Your task to perform on an android device: Go to Reddit.com Image 0: 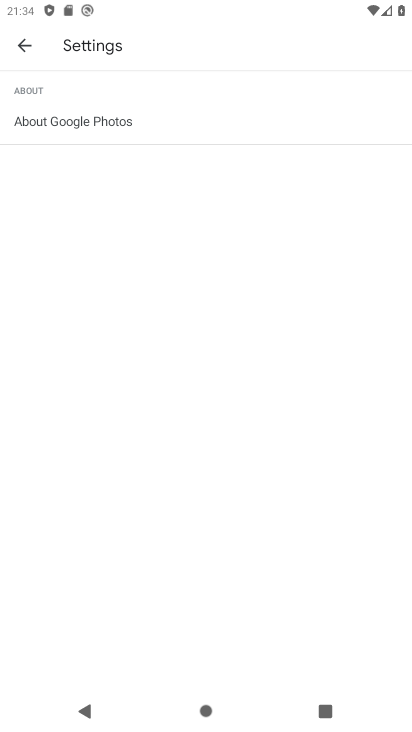
Step 0: press back button
Your task to perform on an android device: Go to Reddit.com Image 1: 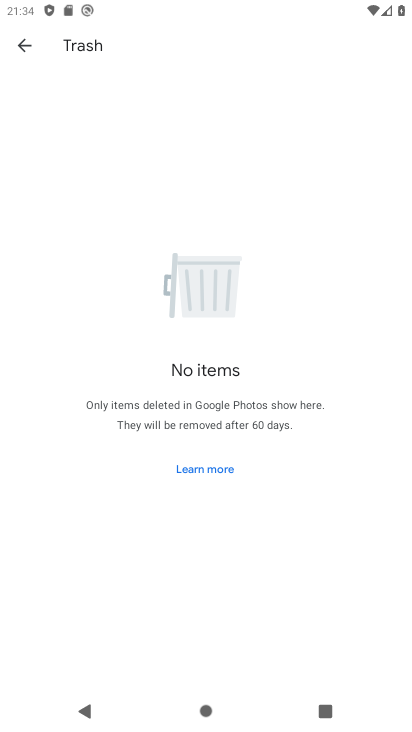
Step 1: press back button
Your task to perform on an android device: Go to Reddit.com Image 2: 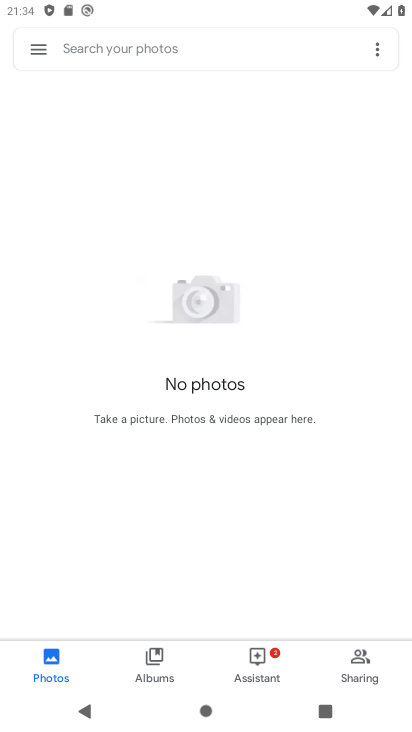
Step 2: press back button
Your task to perform on an android device: Go to Reddit.com Image 3: 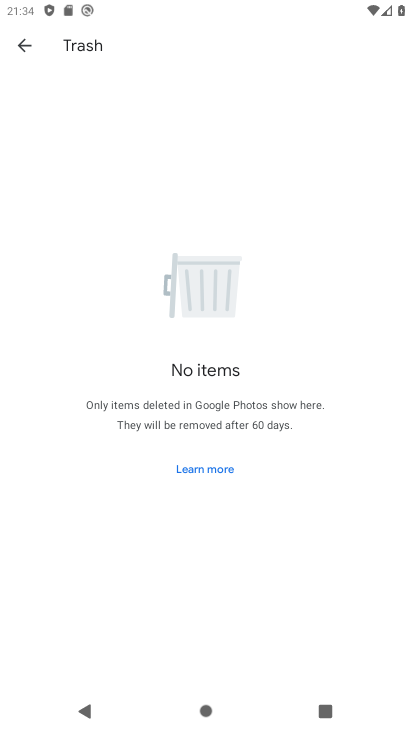
Step 3: press back button
Your task to perform on an android device: Go to Reddit.com Image 4: 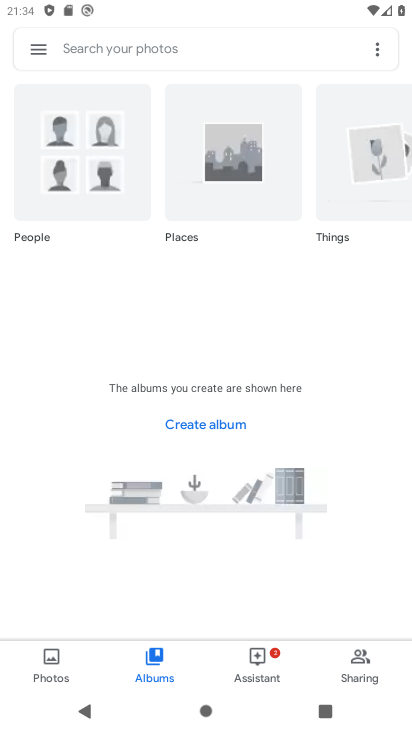
Step 4: press back button
Your task to perform on an android device: Go to Reddit.com Image 5: 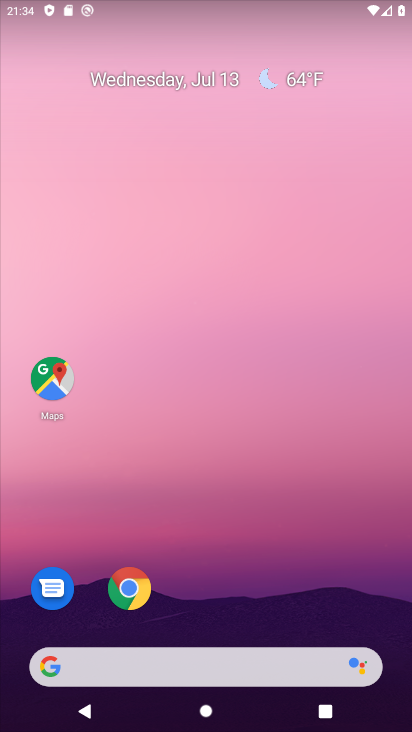
Step 5: click (123, 592)
Your task to perform on an android device: Go to Reddit.com Image 6: 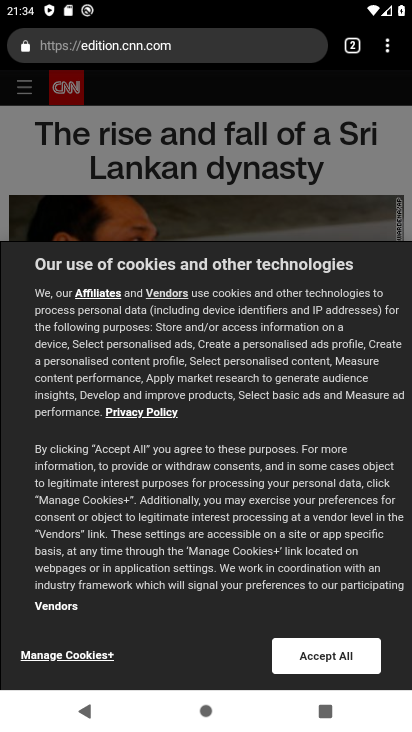
Step 6: click (355, 42)
Your task to perform on an android device: Go to Reddit.com Image 7: 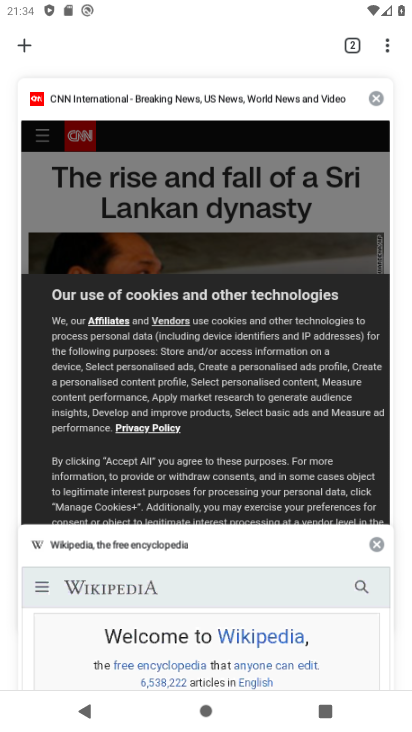
Step 7: click (29, 46)
Your task to perform on an android device: Go to Reddit.com Image 8: 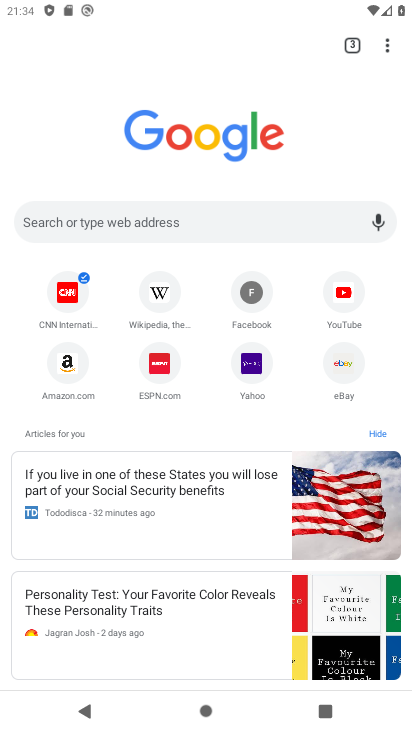
Step 8: click (107, 224)
Your task to perform on an android device: Go to Reddit.com Image 9: 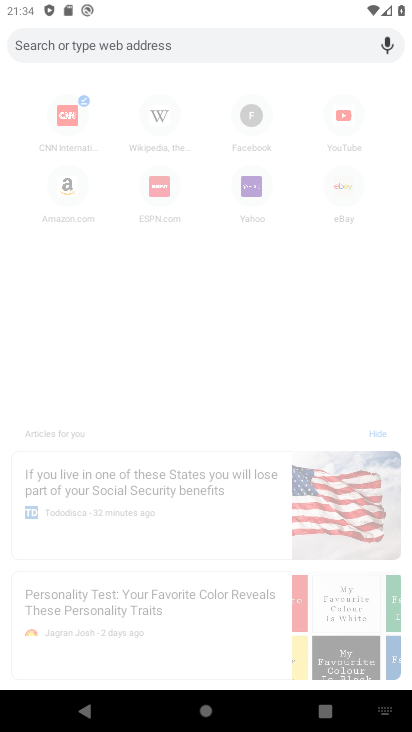
Step 9: type "reddit.com"
Your task to perform on an android device: Go to Reddit.com Image 10: 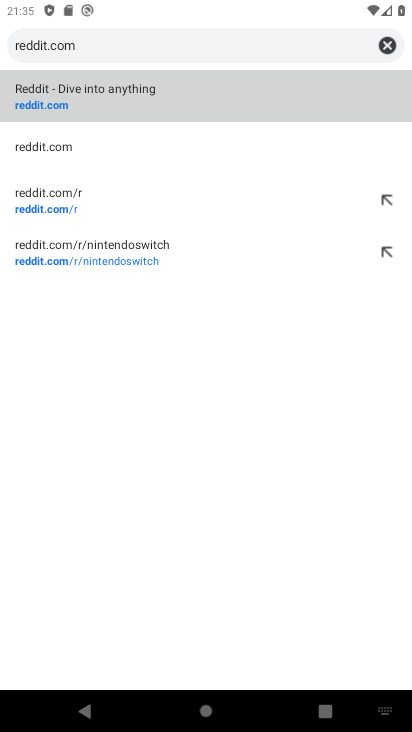
Step 10: click (183, 94)
Your task to perform on an android device: Go to Reddit.com Image 11: 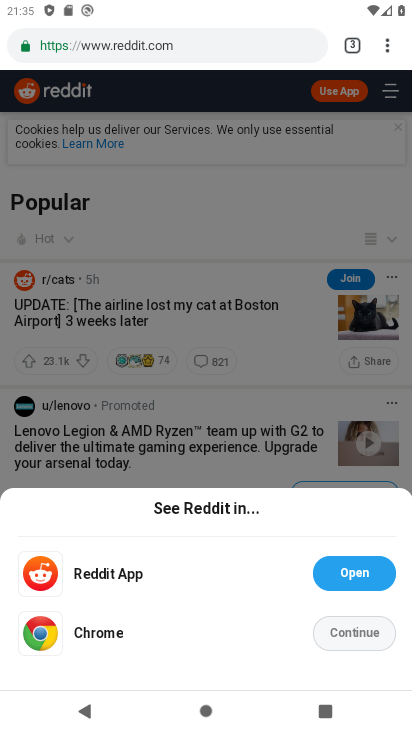
Step 11: task complete